Your task to perform on an android device: turn on showing notifications on the lock screen Image 0: 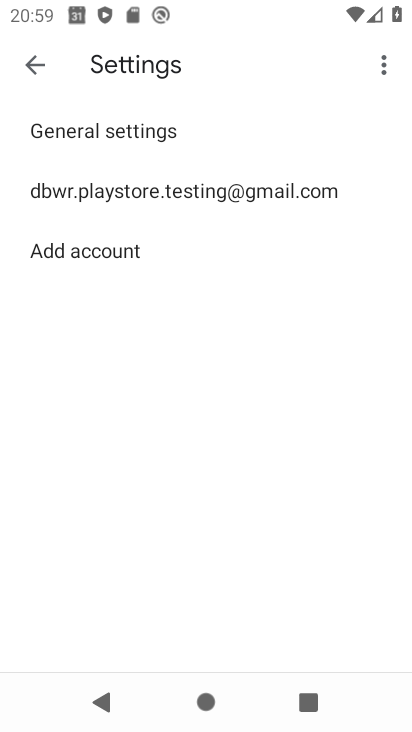
Step 0: press home button
Your task to perform on an android device: turn on showing notifications on the lock screen Image 1: 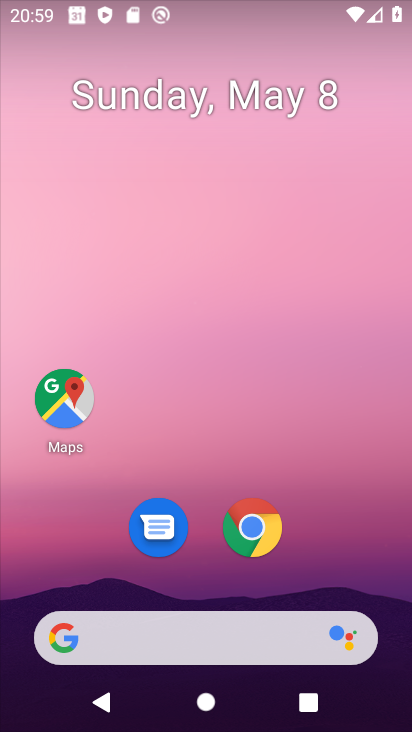
Step 1: drag from (205, 554) to (185, 15)
Your task to perform on an android device: turn on showing notifications on the lock screen Image 2: 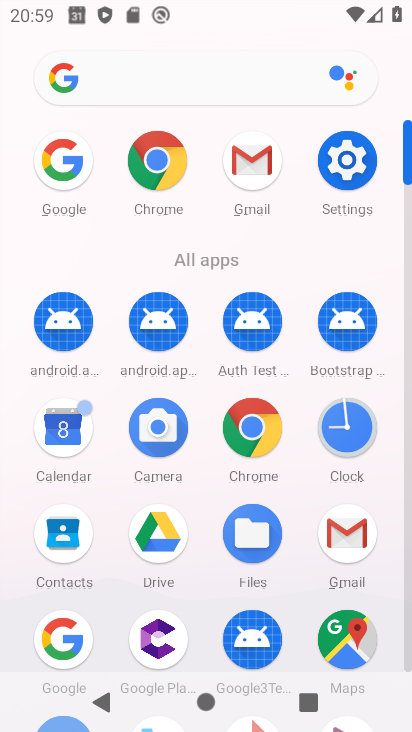
Step 2: click (340, 161)
Your task to perform on an android device: turn on showing notifications on the lock screen Image 3: 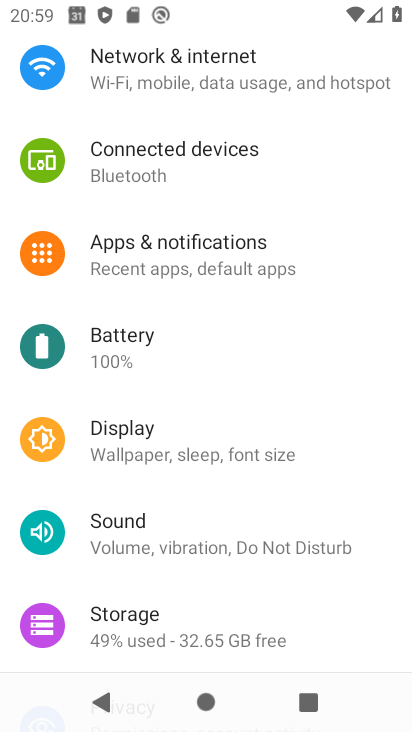
Step 3: drag from (187, 141) to (196, 315)
Your task to perform on an android device: turn on showing notifications on the lock screen Image 4: 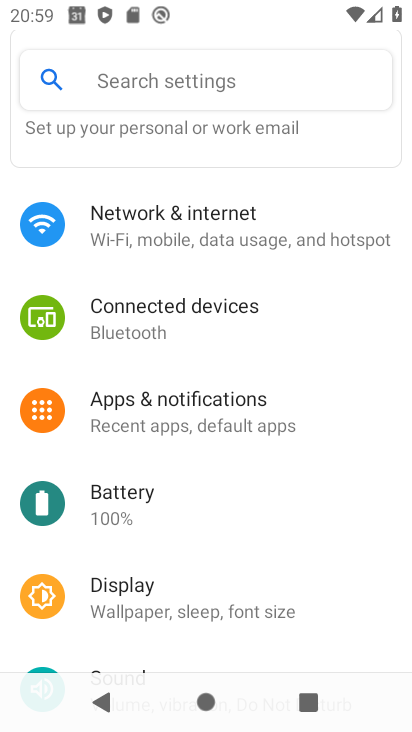
Step 4: click (122, 411)
Your task to perform on an android device: turn on showing notifications on the lock screen Image 5: 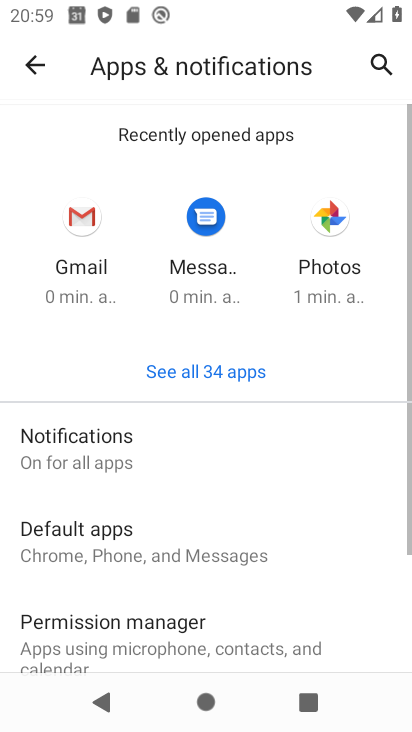
Step 5: click (87, 460)
Your task to perform on an android device: turn on showing notifications on the lock screen Image 6: 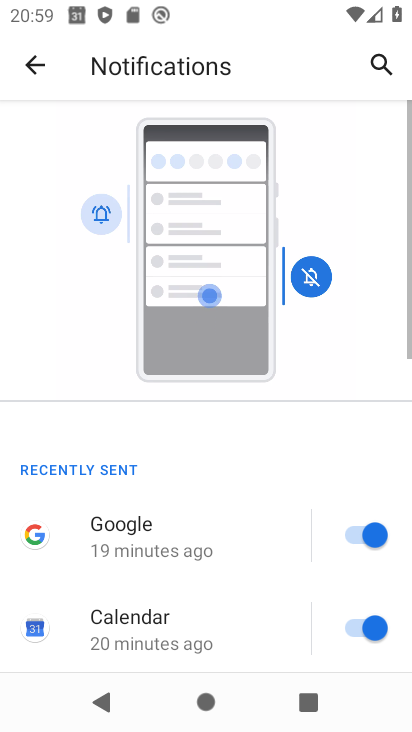
Step 6: drag from (247, 558) to (253, 34)
Your task to perform on an android device: turn on showing notifications on the lock screen Image 7: 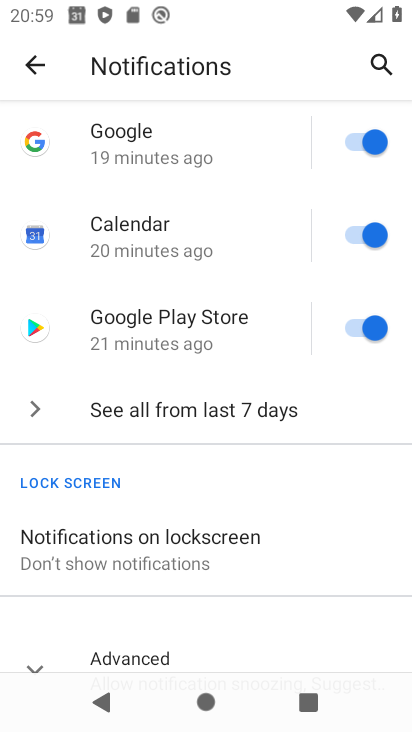
Step 7: click (179, 552)
Your task to perform on an android device: turn on showing notifications on the lock screen Image 8: 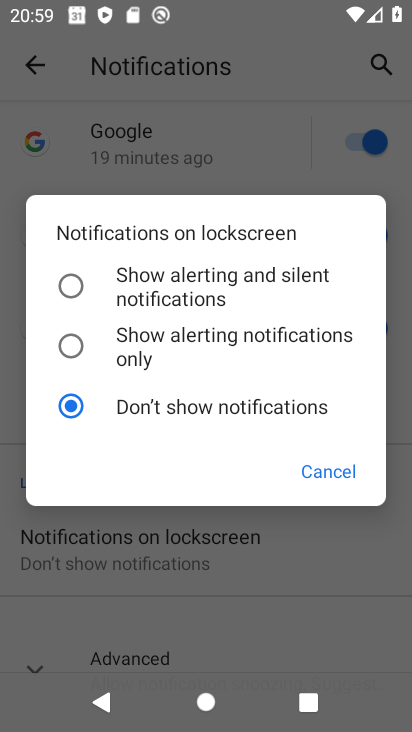
Step 8: click (68, 289)
Your task to perform on an android device: turn on showing notifications on the lock screen Image 9: 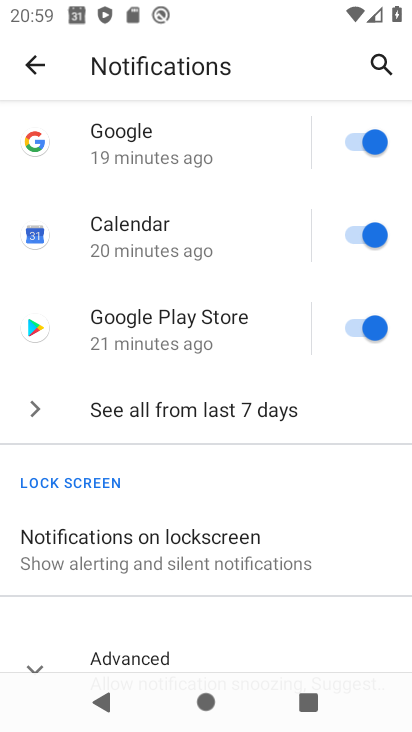
Step 9: task complete